Your task to perform on an android device: Go to battery settings Image 0: 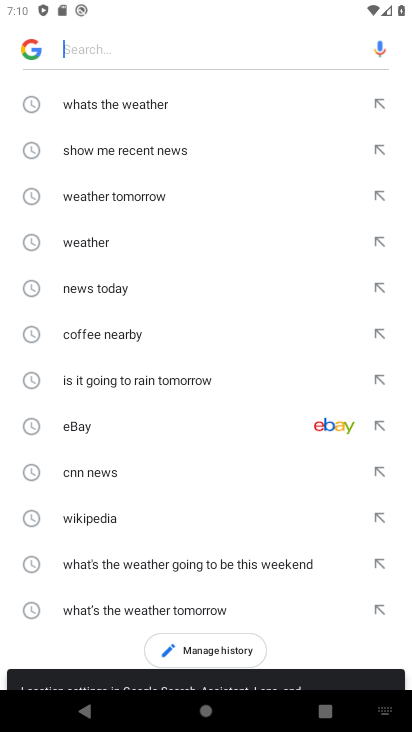
Step 0: press home button
Your task to perform on an android device: Go to battery settings Image 1: 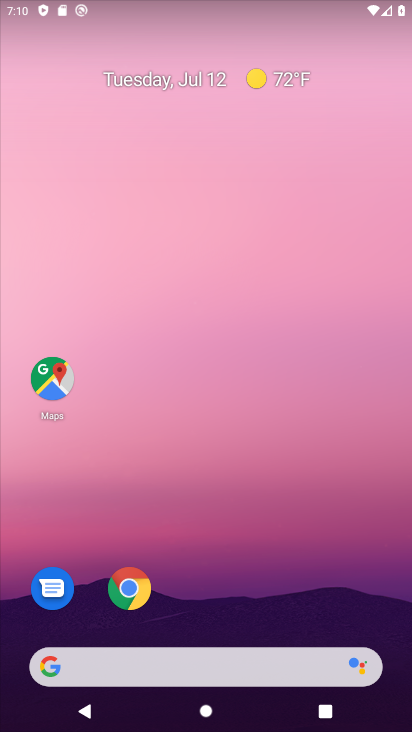
Step 1: drag from (247, 572) to (2, 68)
Your task to perform on an android device: Go to battery settings Image 2: 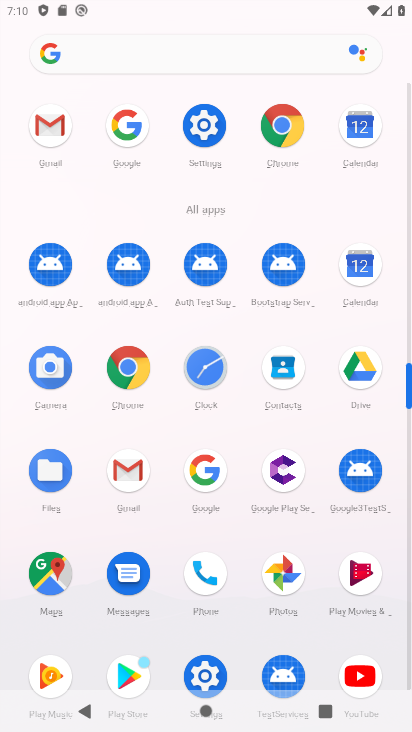
Step 2: click (208, 122)
Your task to perform on an android device: Go to battery settings Image 3: 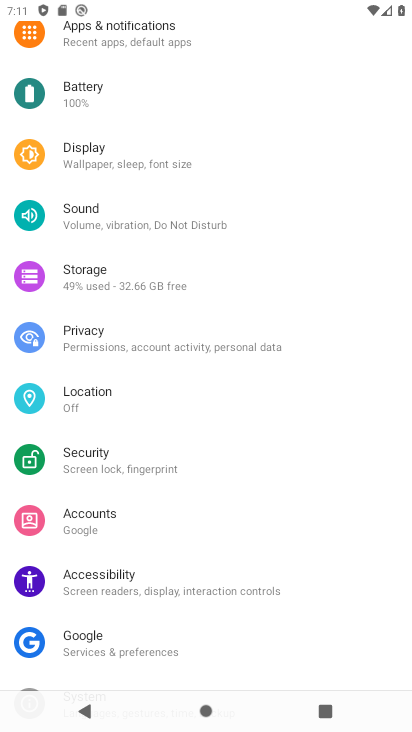
Step 3: click (75, 90)
Your task to perform on an android device: Go to battery settings Image 4: 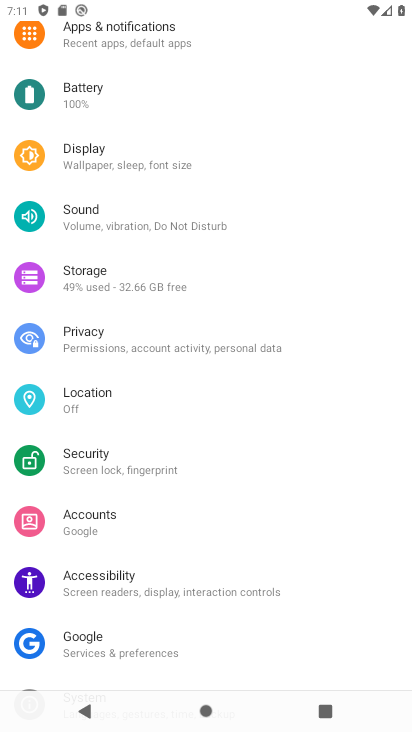
Step 4: click (85, 105)
Your task to perform on an android device: Go to battery settings Image 5: 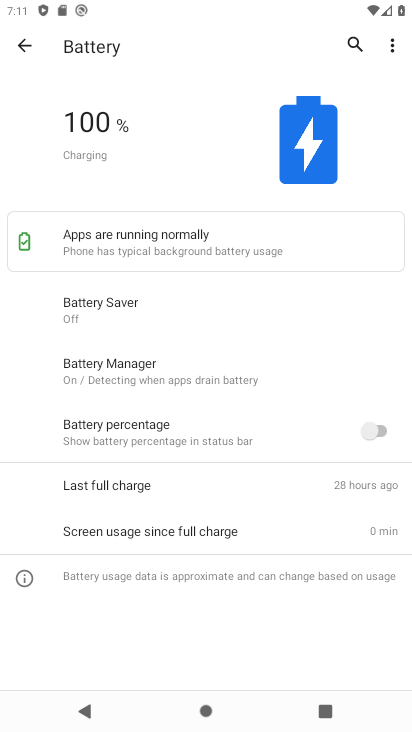
Step 5: task complete